Your task to perform on an android device: Go to settings Image 0: 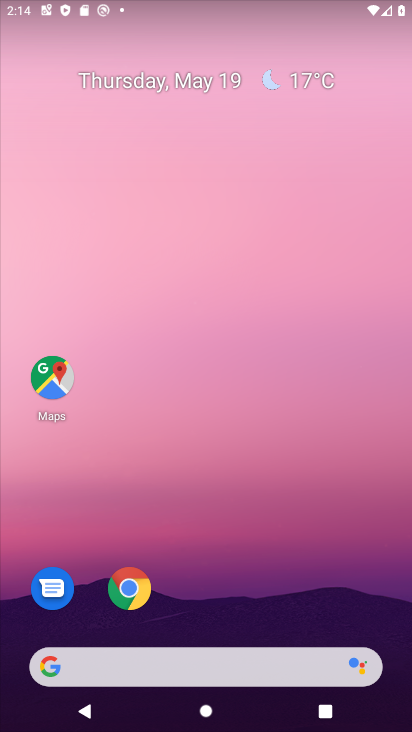
Step 0: drag from (253, 571) to (245, 54)
Your task to perform on an android device: Go to settings Image 1: 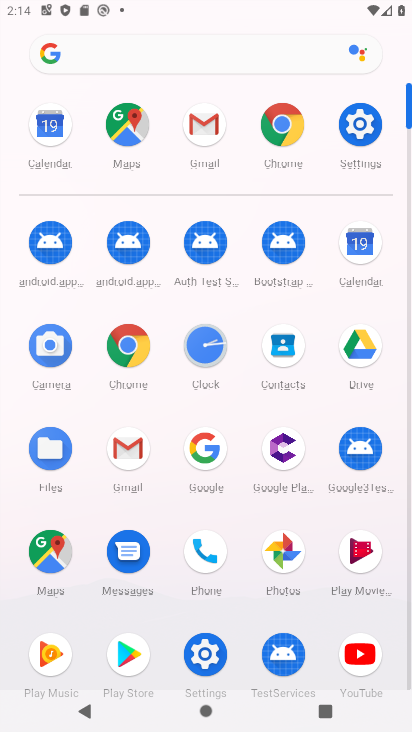
Step 1: click (364, 107)
Your task to perform on an android device: Go to settings Image 2: 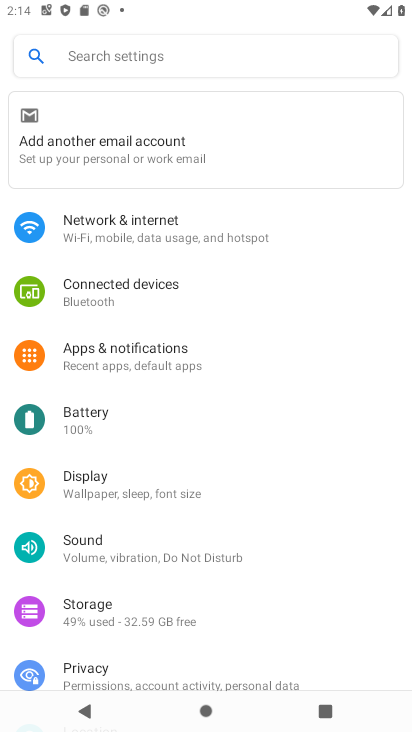
Step 2: task complete